Your task to perform on an android device: Check the settings for the Google Chrome app Image 0: 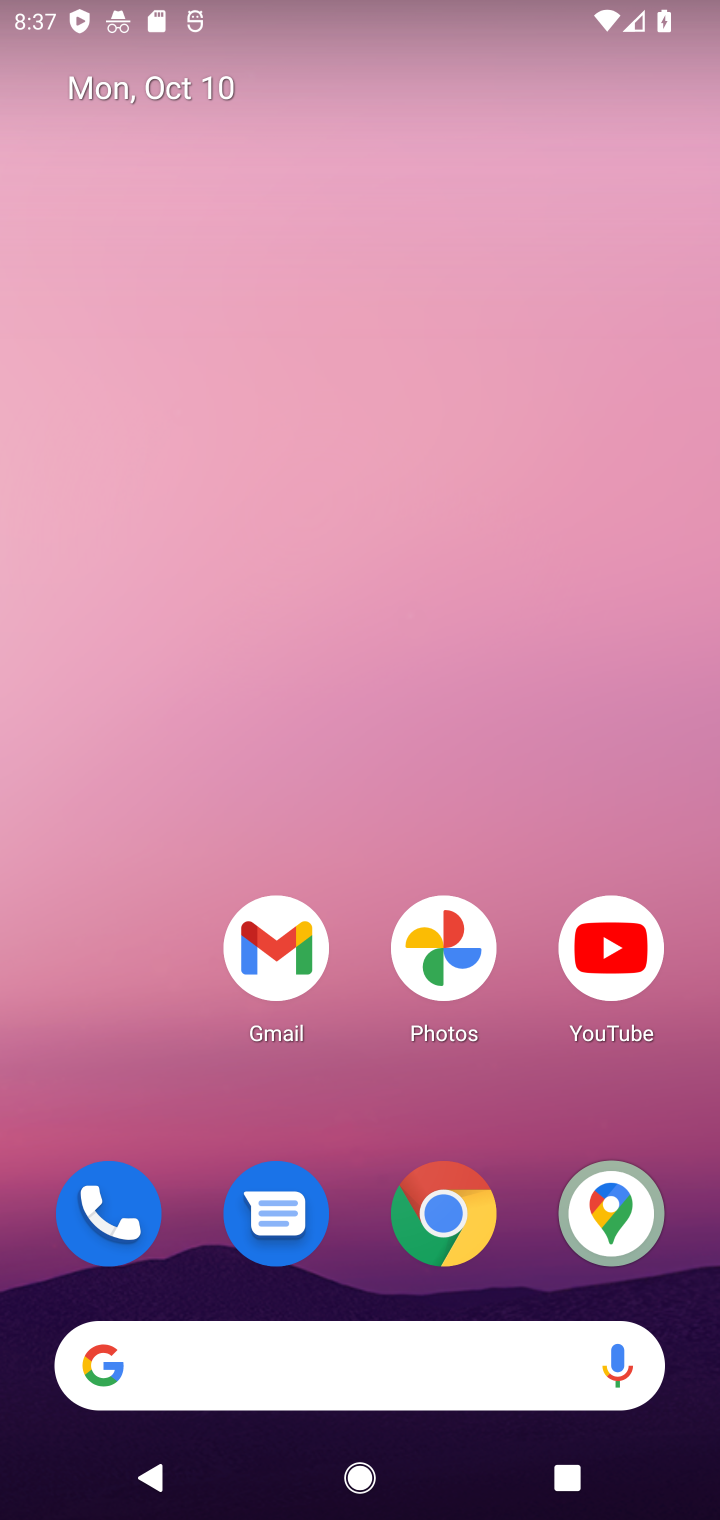
Step 0: click (456, 1174)
Your task to perform on an android device: Check the settings for the Google Chrome app Image 1: 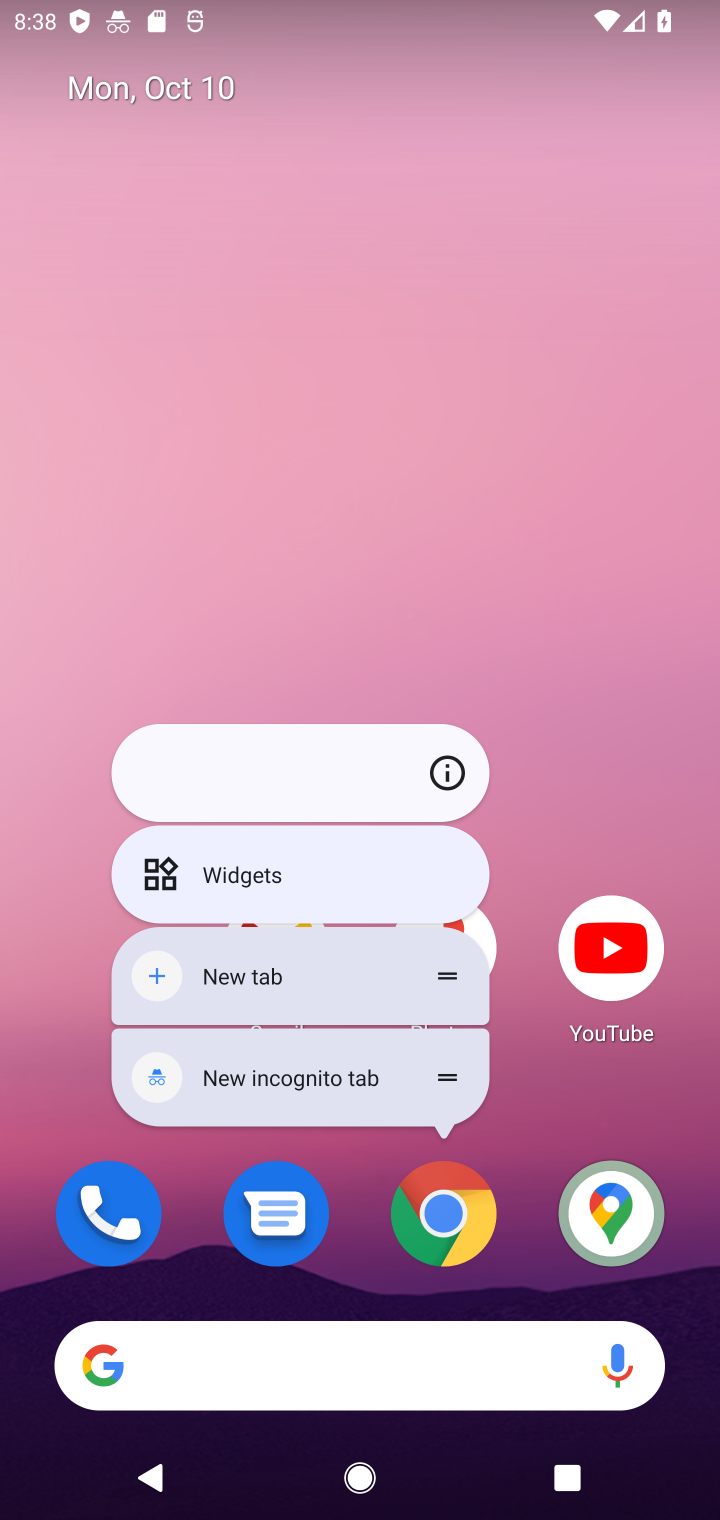
Step 1: click (440, 1209)
Your task to perform on an android device: Check the settings for the Google Chrome app Image 2: 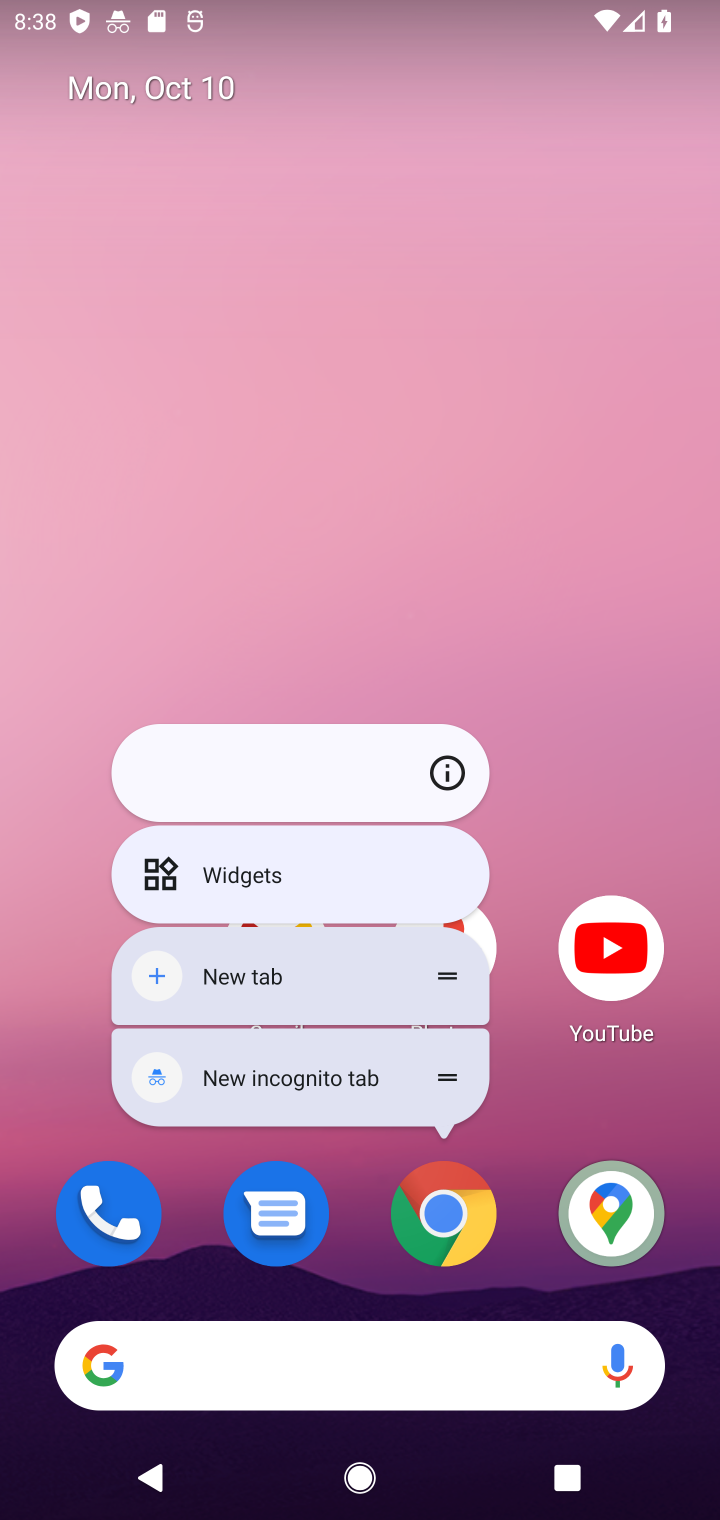
Step 2: click (423, 1248)
Your task to perform on an android device: Check the settings for the Google Chrome app Image 3: 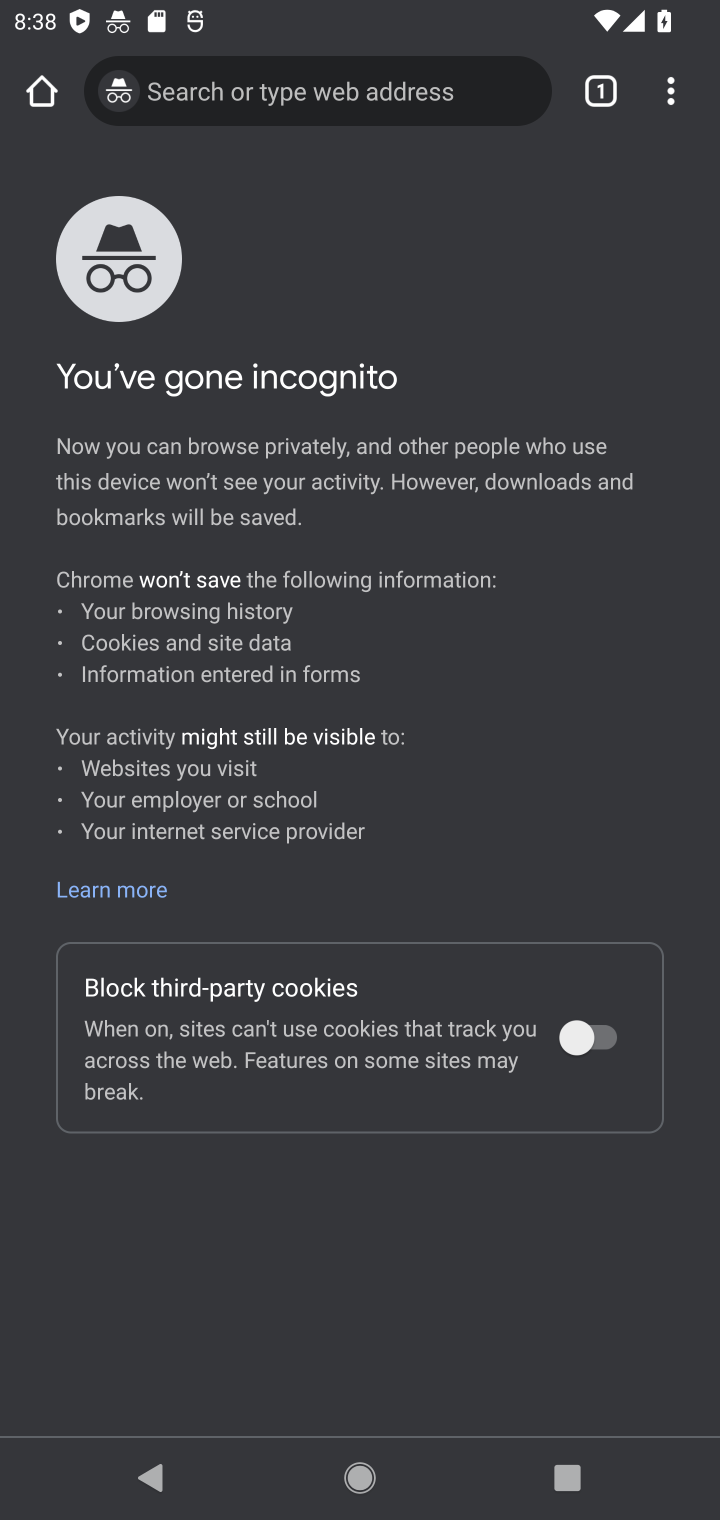
Step 3: task complete